Your task to perform on an android device: Open Google Maps Image 0: 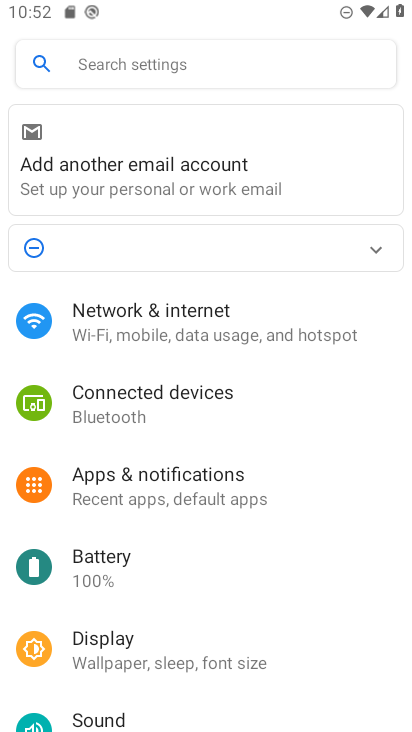
Step 0: press home button
Your task to perform on an android device: Open Google Maps Image 1: 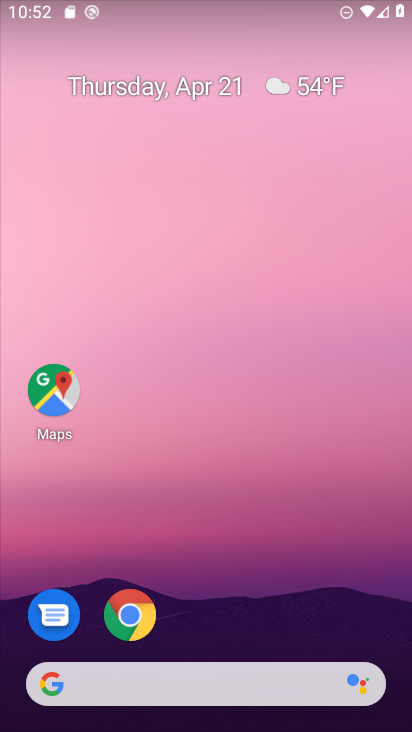
Step 1: drag from (241, 630) to (261, 259)
Your task to perform on an android device: Open Google Maps Image 2: 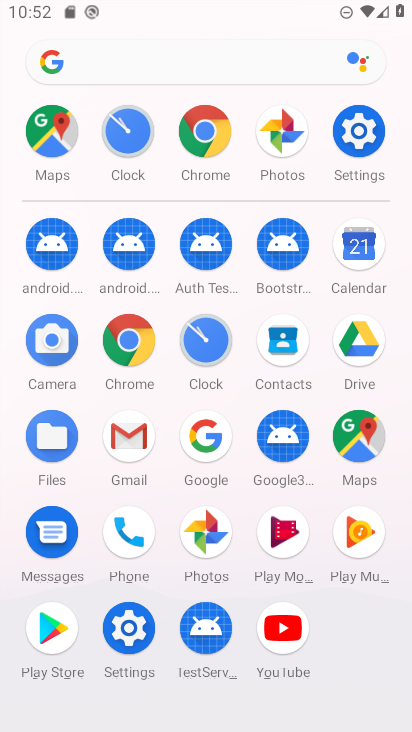
Step 2: click (358, 434)
Your task to perform on an android device: Open Google Maps Image 3: 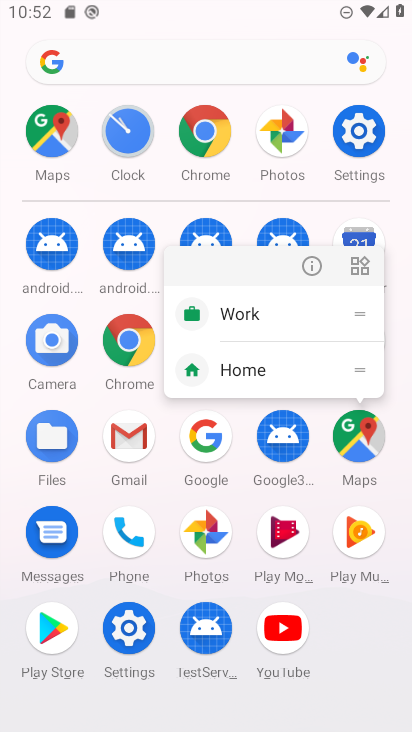
Step 3: click (358, 434)
Your task to perform on an android device: Open Google Maps Image 4: 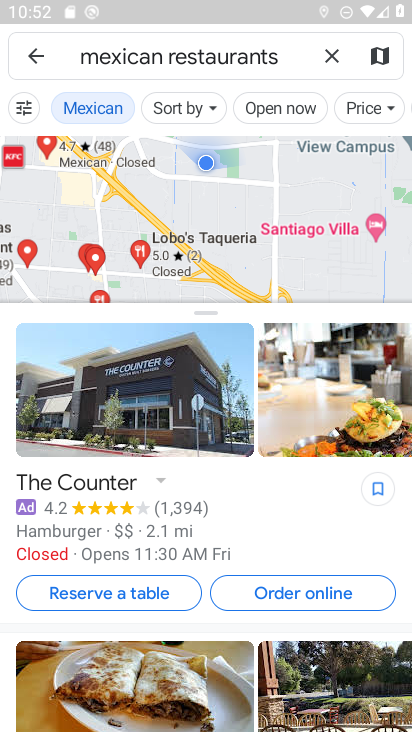
Step 4: click (27, 63)
Your task to perform on an android device: Open Google Maps Image 5: 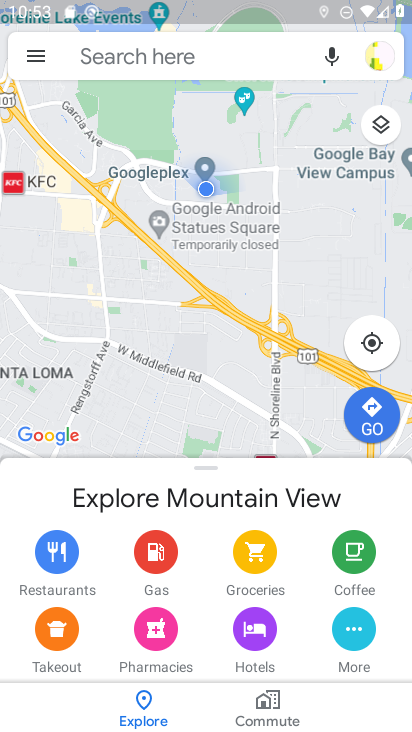
Step 5: task complete